Your task to perform on an android device: turn off sleep mode Image 0: 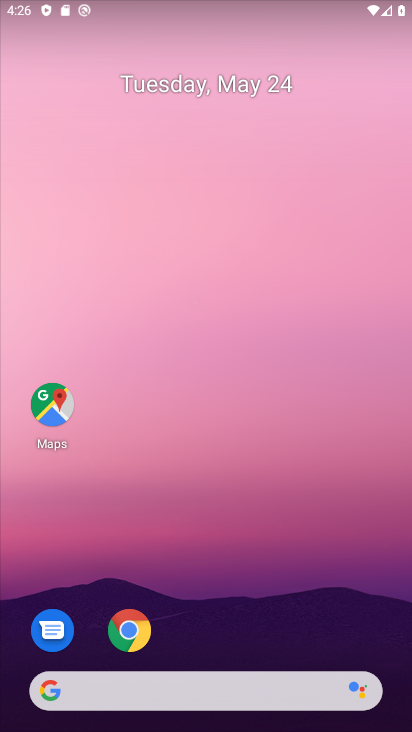
Step 0: drag from (237, 620) to (272, 35)
Your task to perform on an android device: turn off sleep mode Image 1: 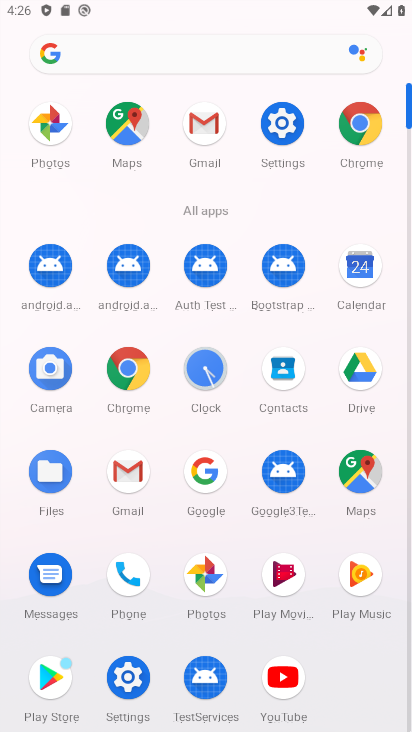
Step 1: click (289, 125)
Your task to perform on an android device: turn off sleep mode Image 2: 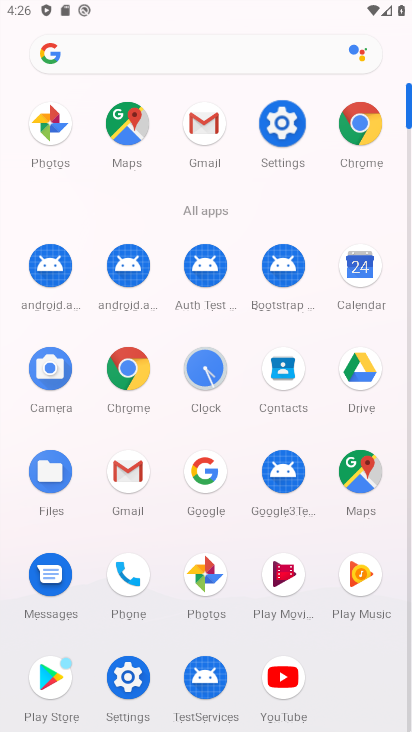
Step 2: click (289, 125)
Your task to perform on an android device: turn off sleep mode Image 3: 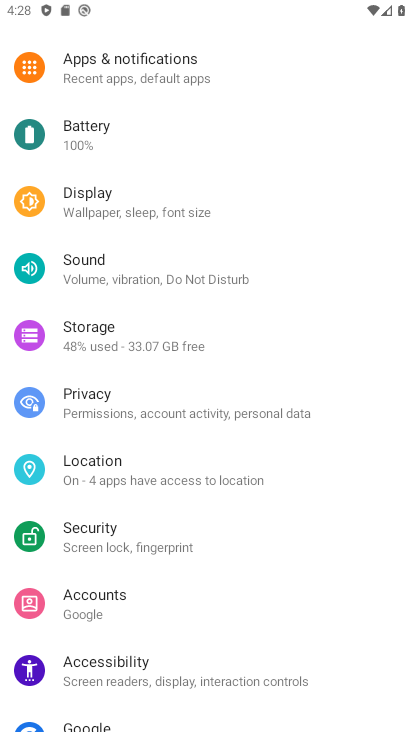
Step 3: task complete